Your task to perform on an android device: turn on priority inbox in the gmail app Image 0: 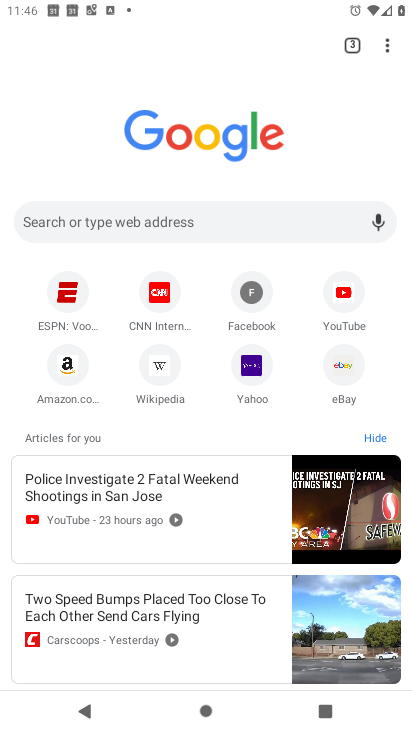
Step 0: press home button
Your task to perform on an android device: turn on priority inbox in the gmail app Image 1: 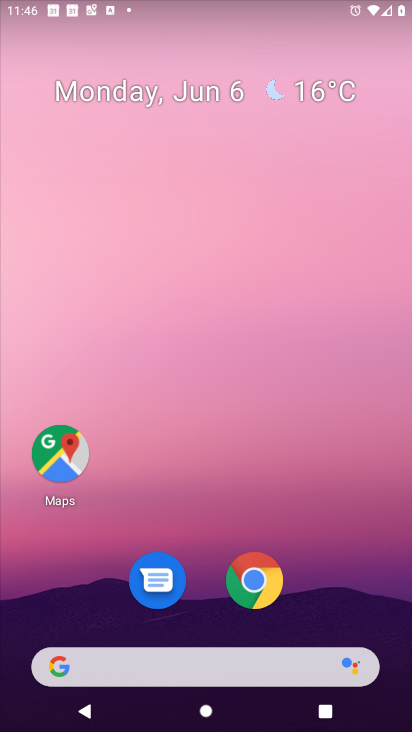
Step 1: drag from (400, 301) to (345, 5)
Your task to perform on an android device: turn on priority inbox in the gmail app Image 2: 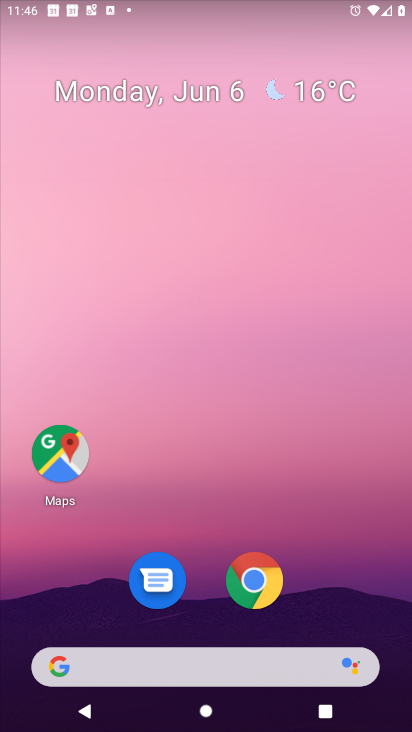
Step 2: drag from (357, 541) to (161, 1)
Your task to perform on an android device: turn on priority inbox in the gmail app Image 3: 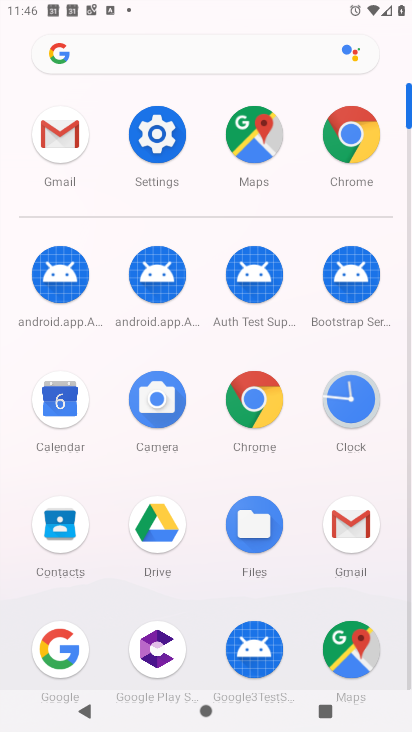
Step 3: click (62, 147)
Your task to perform on an android device: turn on priority inbox in the gmail app Image 4: 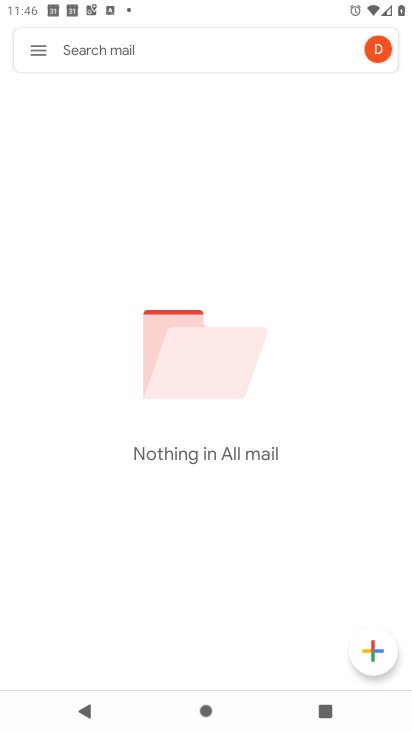
Step 4: click (55, 48)
Your task to perform on an android device: turn on priority inbox in the gmail app Image 5: 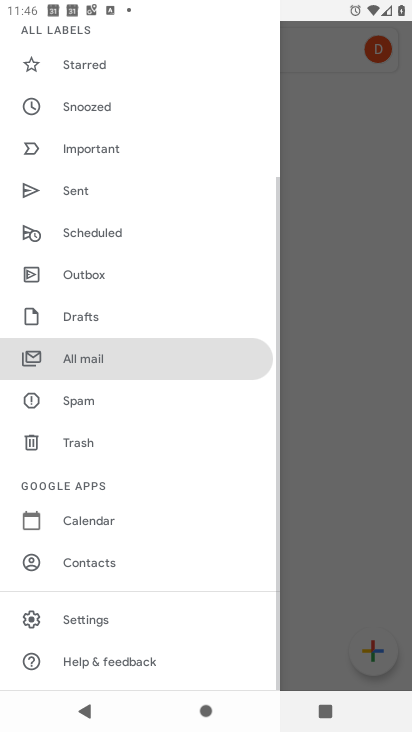
Step 5: click (88, 613)
Your task to perform on an android device: turn on priority inbox in the gmail app Image 6: 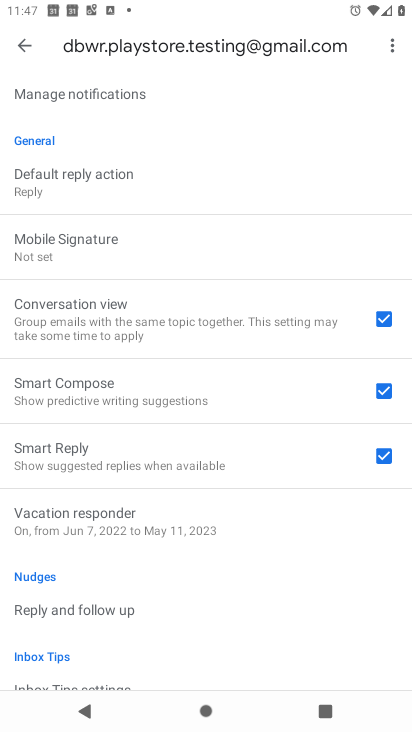
Step 6: task complete